Your task to perform on an android device: What's the weather going to be tomorrow? Image 0: 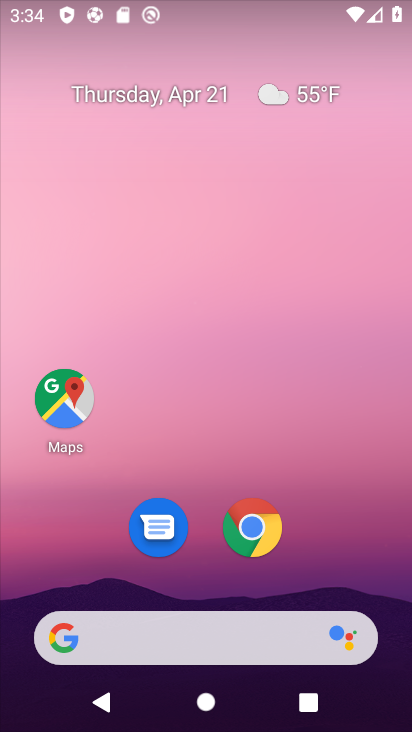
Step 0: click (232, 200)
Your task to perform on an android device: What's the weather going to be tomorrow? Image 1: 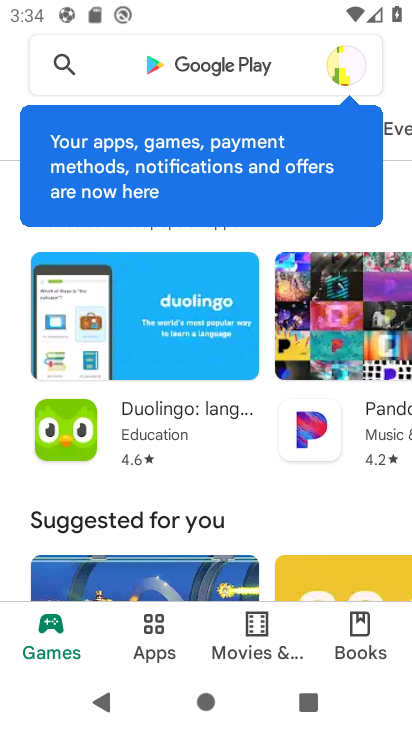
Step 1: press home button
Your task to perform on an android device: What's the weather going to be tomorrow? Image 2: 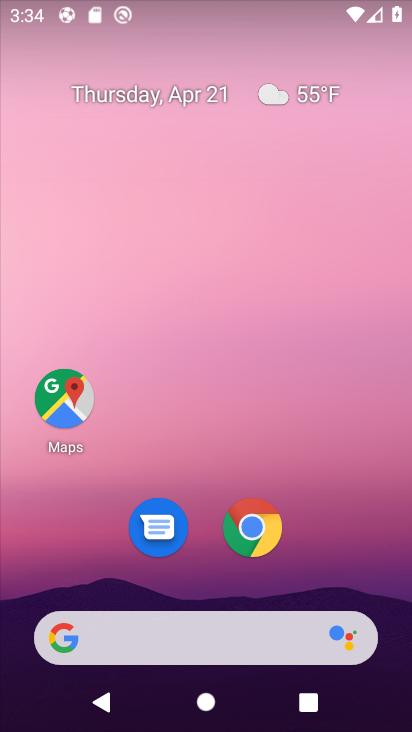
Step 2: click (254, 540)
Your task to perform on an android device: What's the weather going to be tomorrow? Image 3: 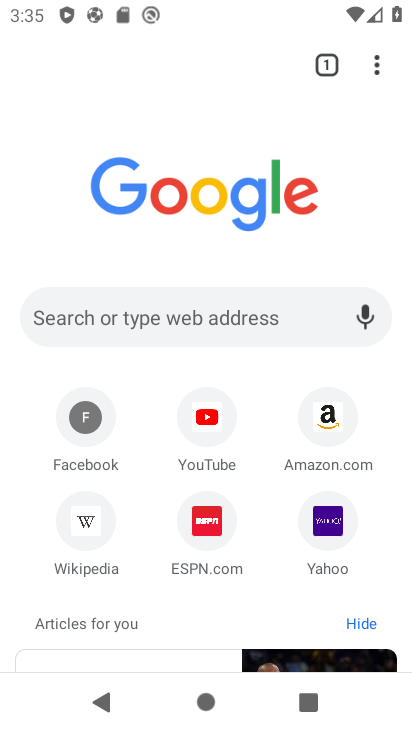
Step 3: click (377, 66)
Your task to perform on an android device: What's the weather going to be tomorrow? Image 4: 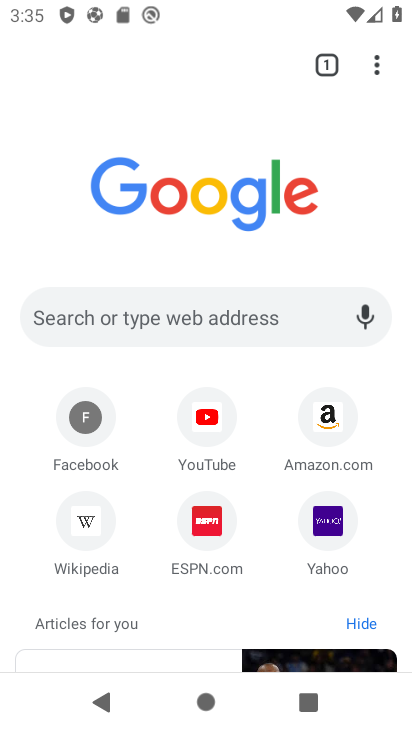
Step 4: click (377, 66)
Your task to perform on an android device: What's the weather going to be tomorrow? Image 5: 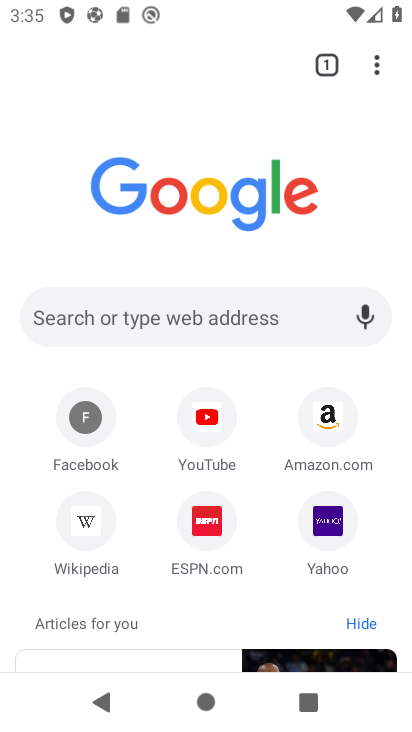
Step 5: click (377, 70)
Your task to perform on an android device: What's the weather going to be tomorrow? Image 6: 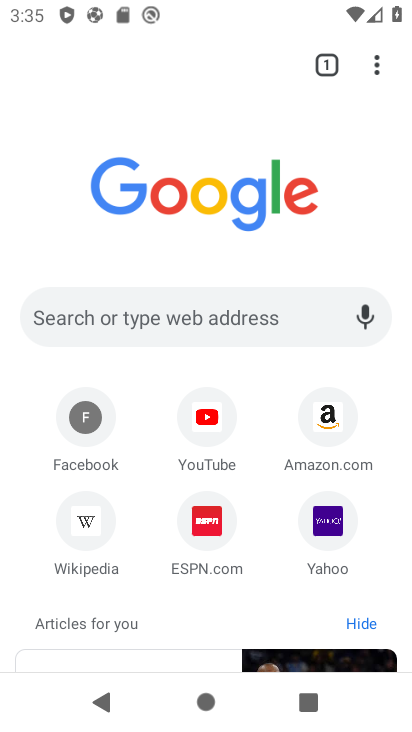
Step 6: click (378, 70)
Your task to perform on an android device: What's the weather going to be tomorrow? Image 7: 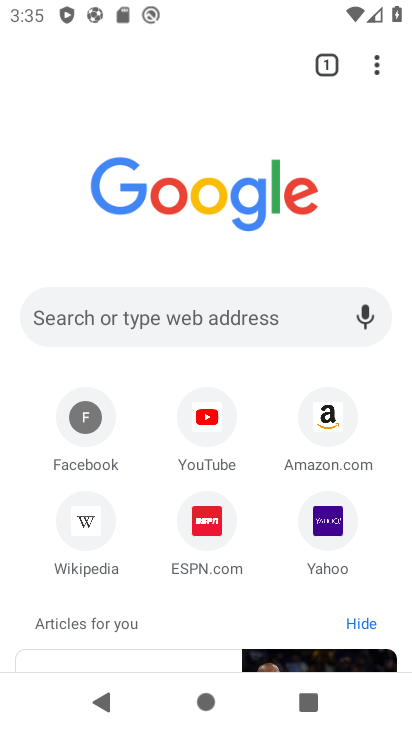
Step 7: click (377, 71)
Your task to perform on an android device: What's the weather going to be tomorrow? Image 8: 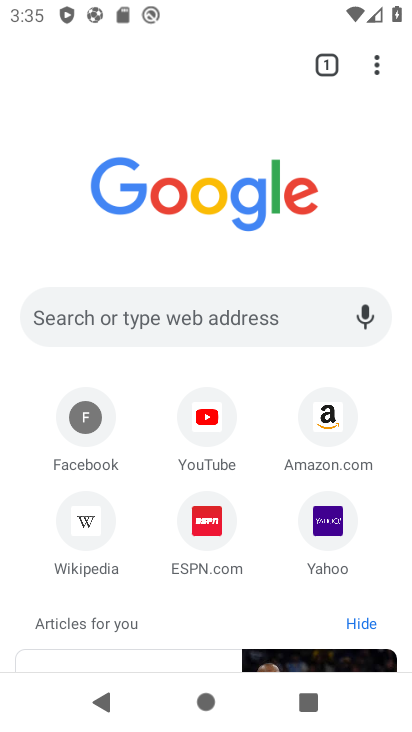
Step 8: press home button
Your task to perform on an android device: What's the weather going to be tomorrow? Image 9: 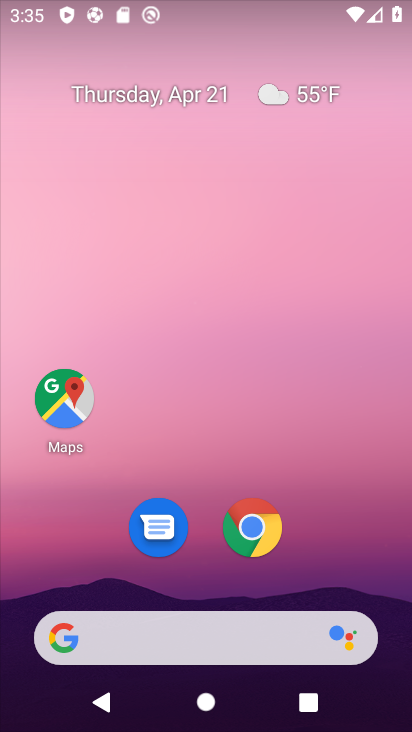
Step 9: drag from (189, 571) to (162, 130)
Your task to perform on an android device: What's the weather going to be tomorrow? Image 10: 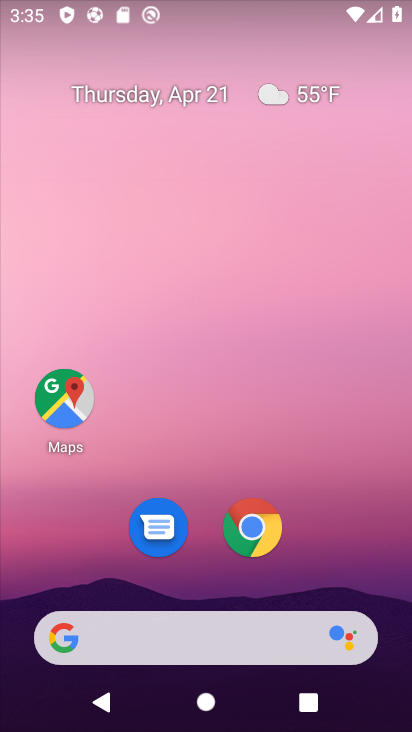
Step 10: drag from (325, 548) to (307, 169)
Your task to perform on an android device: What's the weather going to be tomorrow? Image 11: 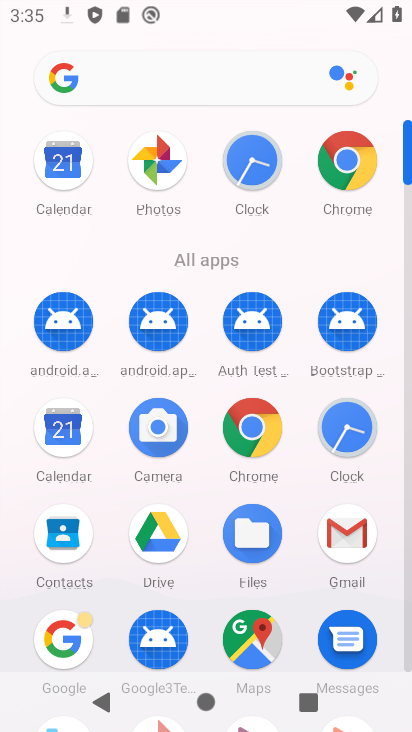
Step 11: drag from (223, 591) to (166, 303)
Your task to perform on an android device: What's the weather going to be tomorrow? Image 12: 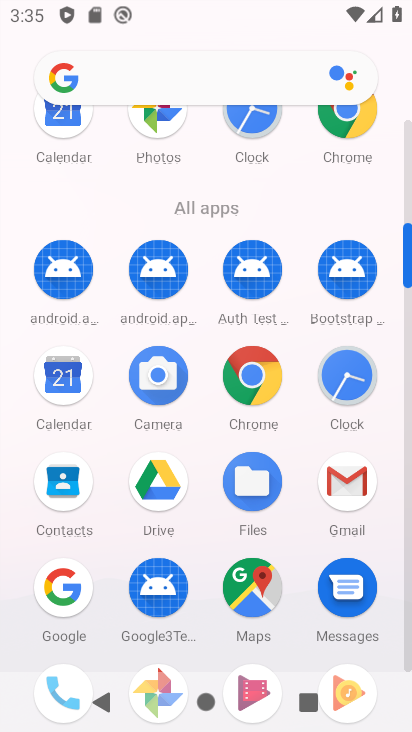
Step 12: drag from (146, 471) to (170, 371)
Your task to perform on an android device: What's the weather going to be tomorrow? Image 13: 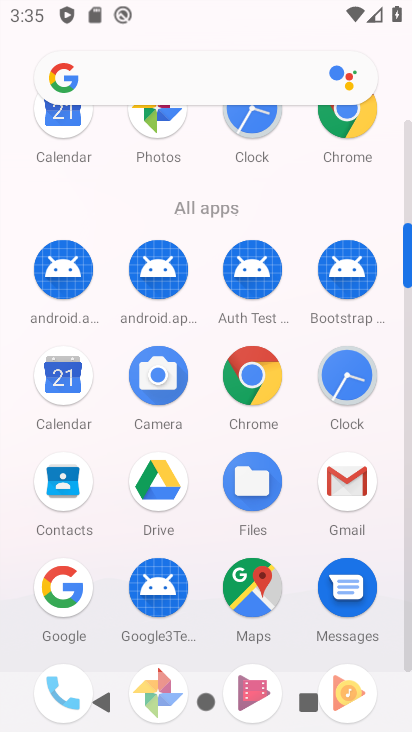
Step 13: click (69, 587)
Your task to perform on an android device: What's the weather going to be tomorrow? Image 14: 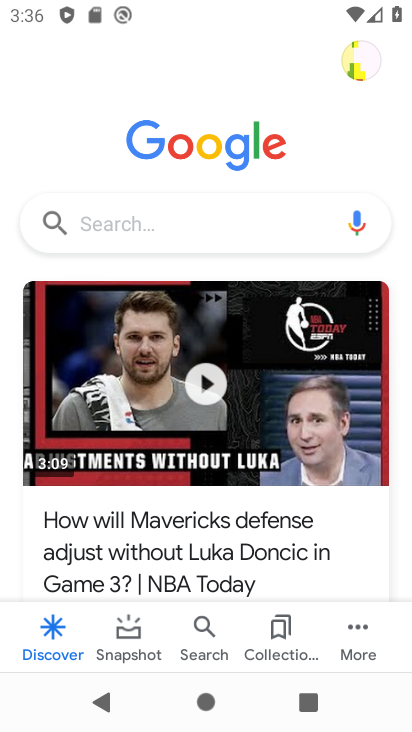
Step 14: drag from (299, 570) to (307, 298)
Your task to perform on an android device: What's the weather going to be tomorrow? Image 15: 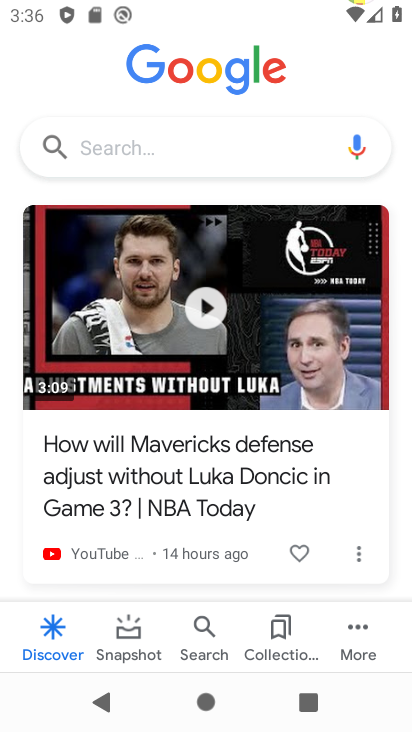
Step 15: click (167, 137)
Your task to perform on an android device: What's the weather going to be tomorrow? Image 16: 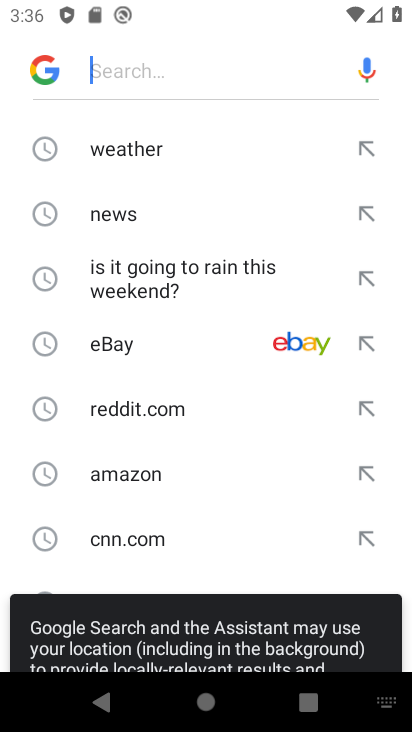
Step 16: click (98, 151)
Your task to perform on an android device: What's the weather going to be tomorrow? Image 17: 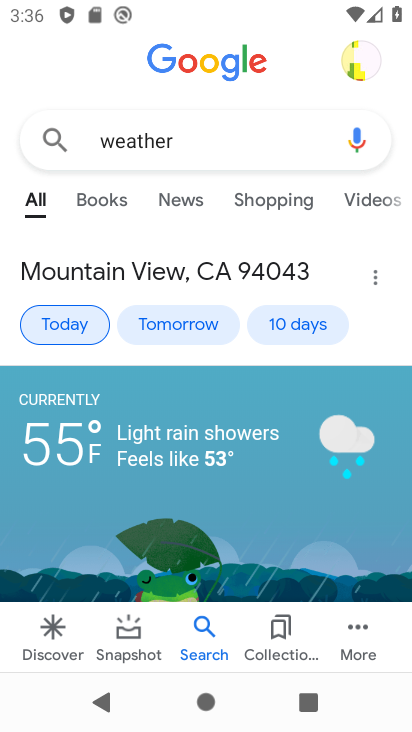
Step 17: click (183, 316)
Your task to perform on an android device: What's the weather going to be tomorrow? Image 18: 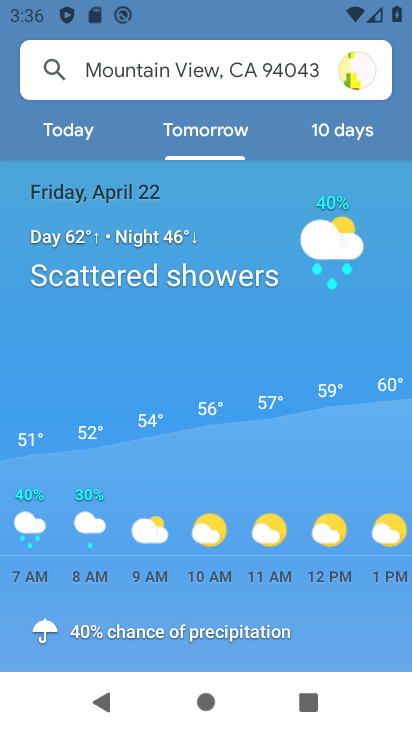
Step 18: drag from (298, 628) to (273, 430)
Your task to perform on an android device: What's the weather going to be tomorrow? Image 19: 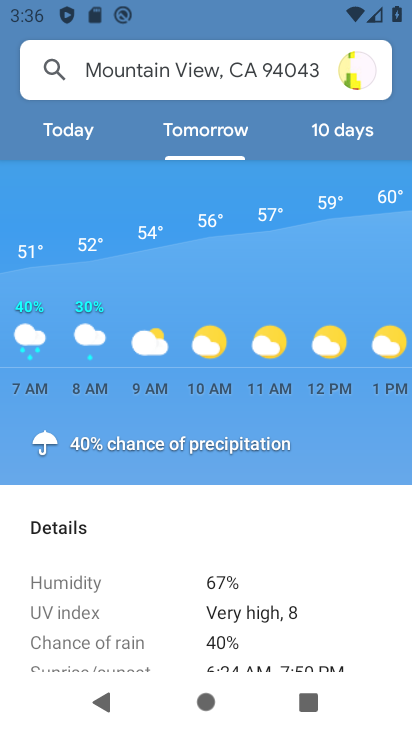
Step 19: drag from (330, 615) to (300, 382)
Your task to perform on an android device: What's the weather going to be tomorrow? Image 20: 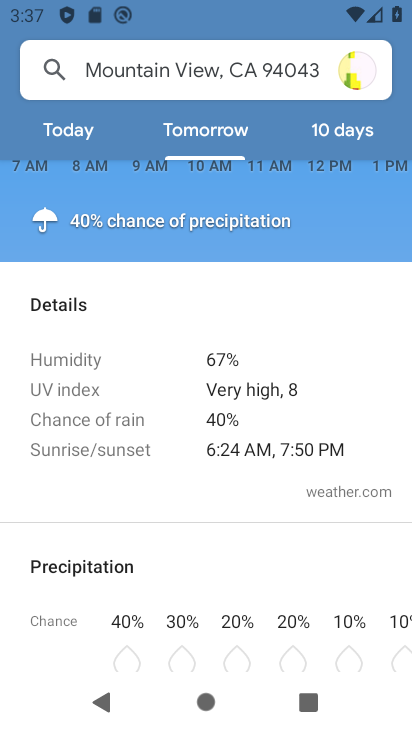
Step 20: drag from (266, 554) to (278, 375)
Your task to perform on an android device: What's the weather going to be tomorrow? Image 21: 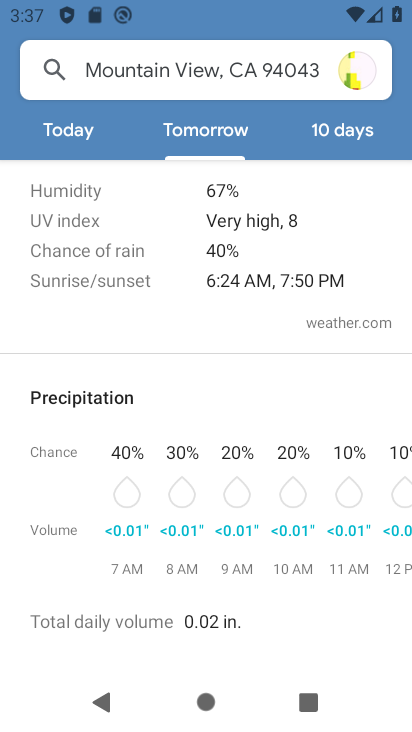
Step 21: drag from (273, 631) to (286, 394)
Your task to perform on an android device: What's the weather going to be tomorrow? Image 22: 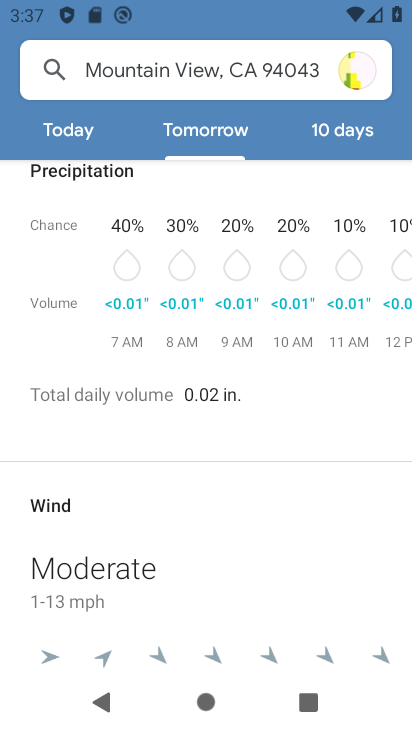
Step 22: drag from (276, 571) to (260, 421)
Your task to perform on an android device: What's the weather going to be tomorrow? Image 23: 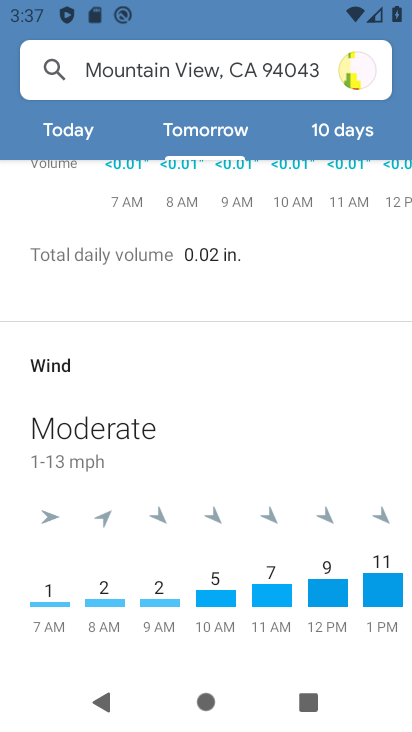
Step 23: drag from (268, 588) to (246, 435)
Your task to perform on an android device: What's the weather going to be tomorrow? Image 24: 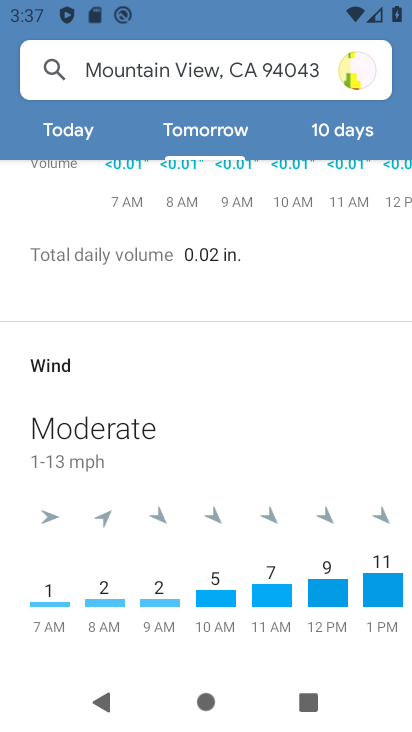
Step 24: drag from (337, 617) to (309, 366)
Your task to perform on an android device: What's the weather going to be tomorrow? Image 25: 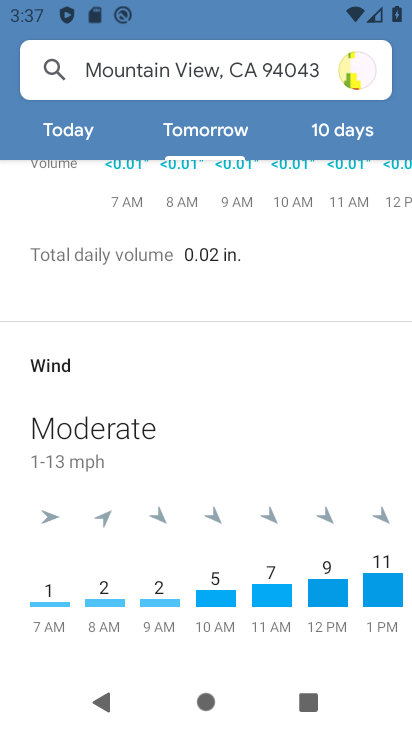
Step 25: drag from (342, 522) to (285, 252)
Your task to perform on an android device: What's the weather going to be tomorrow? Image 26: 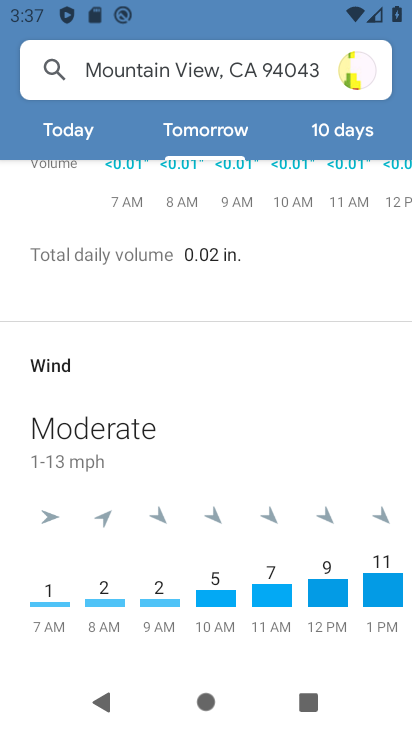
Step 26: drag from (189, 485) to (234, 193)
Your task to perform on an android device: What's the weather going to be tomorrow? Image 27: 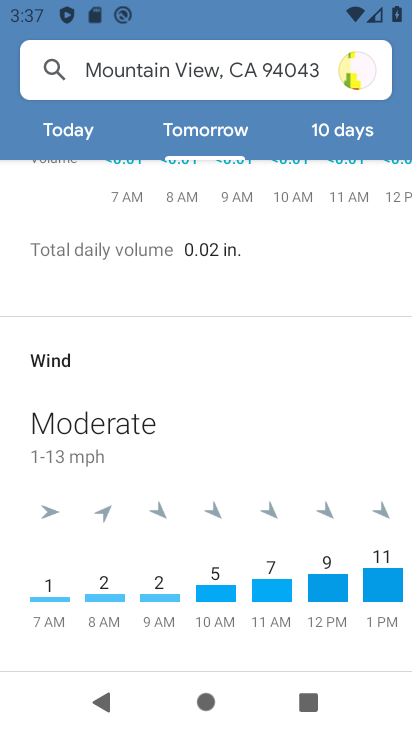
Step 27: drag from (320, 268) to (298, 615)
Your task to perform on an android device: What's the weather going to be tomorrow? Image 28: 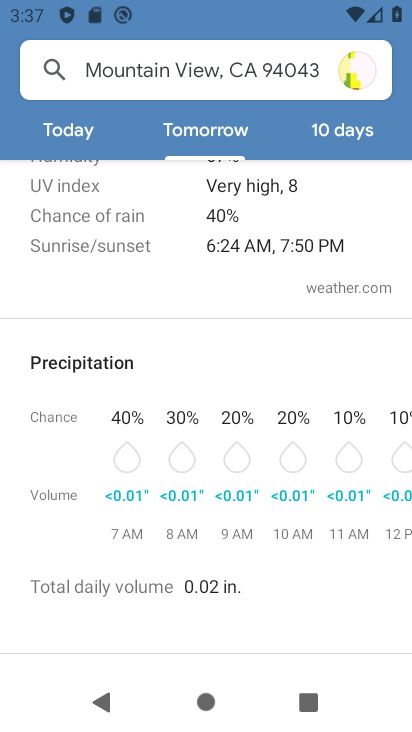
Step 28: click (238, 81)
Your task to perform on an android device: What's the weather going to be tomorrow? Image 29: 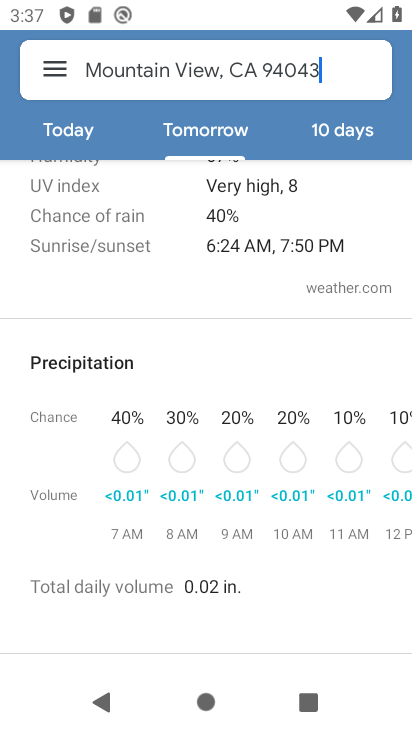
Step 29: drag from (343, 261) to (348, 579)
Your task to perform on an android device: What's the weather going to be tomorrow? Image 30: 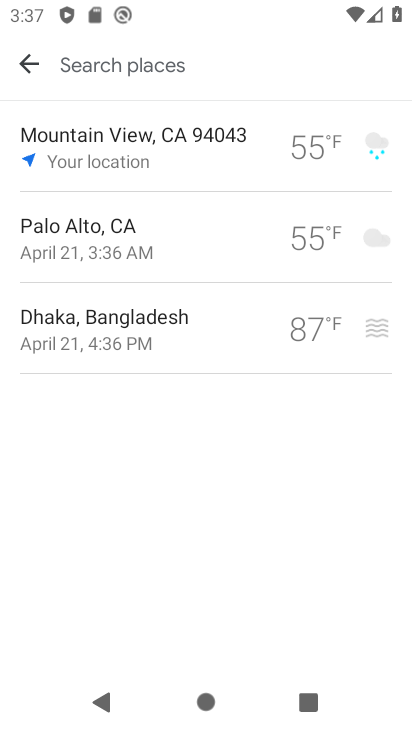
Step 30: click (308, 141)
Your task to perform on an android device: What's the weather going to be tomorrow? Image 31: 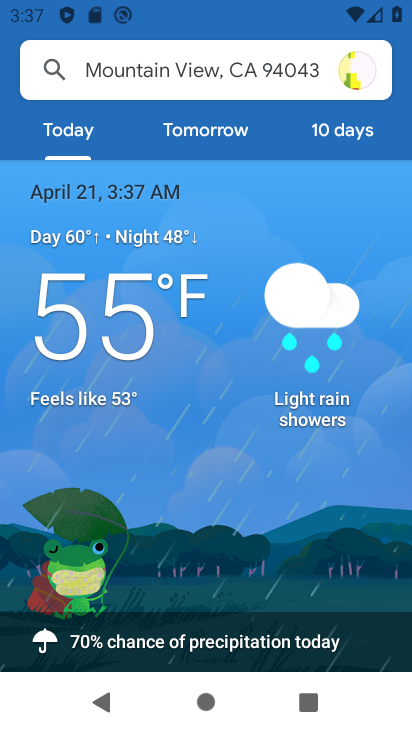
Step 31: click (190, 300)
Your task to perform on an android device: What's the weather going to be tomorrow? Image 32: 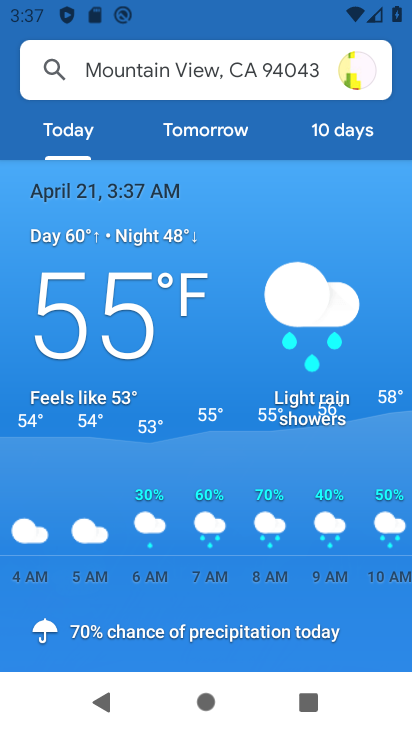
Step 32: click (186, 302)
Your task to perform on an android device: What's the weather going to be tomorrow? Image 33: 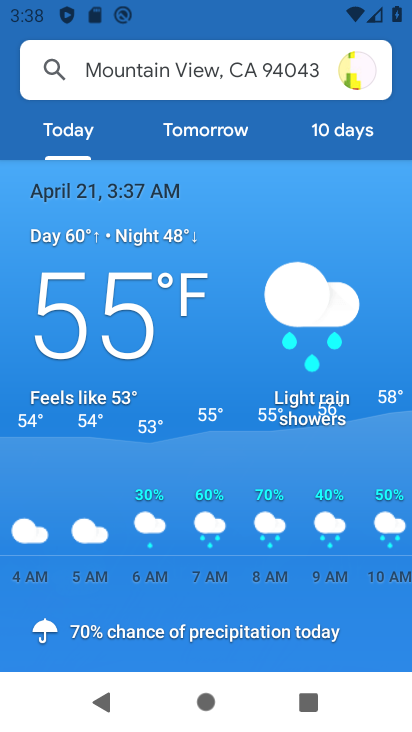
Step 33: task complete